Your task to perform on an android device: turn on translation in the chrome app Image 0: 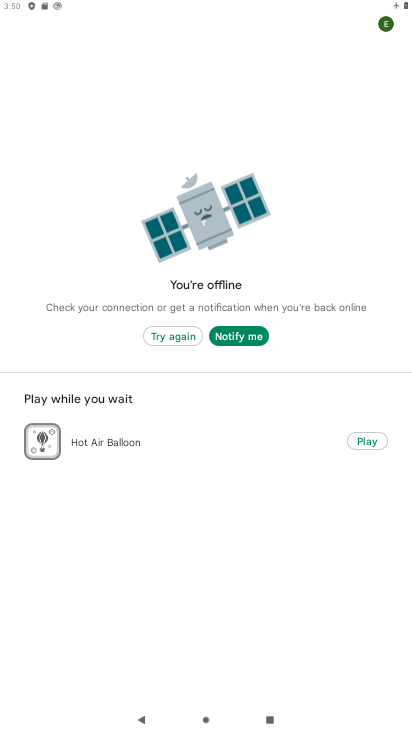
Step 0: press home button
Your task to perform on an android device: turn on translation in the chrome app Image 1: 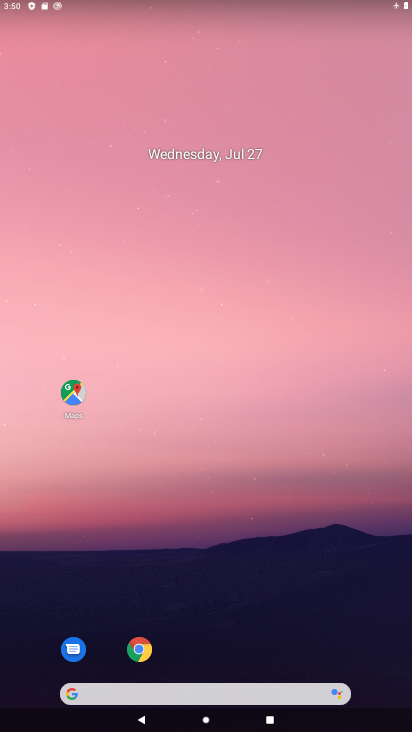
Step 1: drag from (290, 624) to (283, 135)
Your task to perform on an android device: turn on translation in the chrome app Image 2: 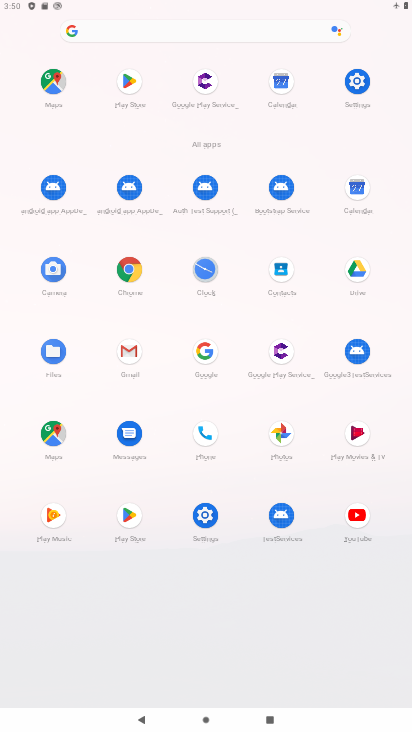
Step 2: click (130, 277)
Your task to perform on an android device: turn on translation in the chrome app Image 3: 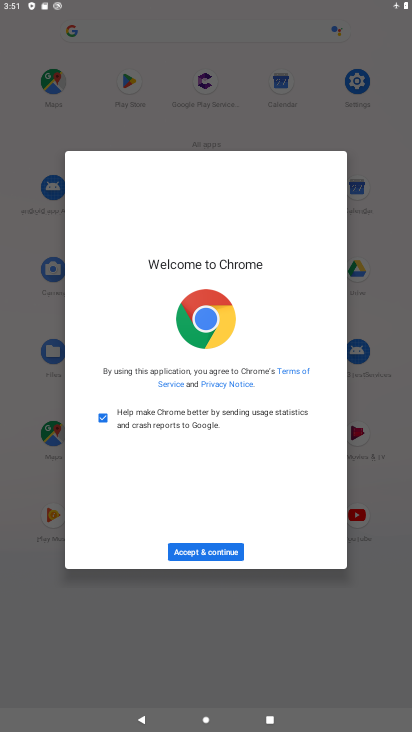
Step 3: click (190, 554)
Your task to perform on an android device: turn on translation in the chrome app Image 4: 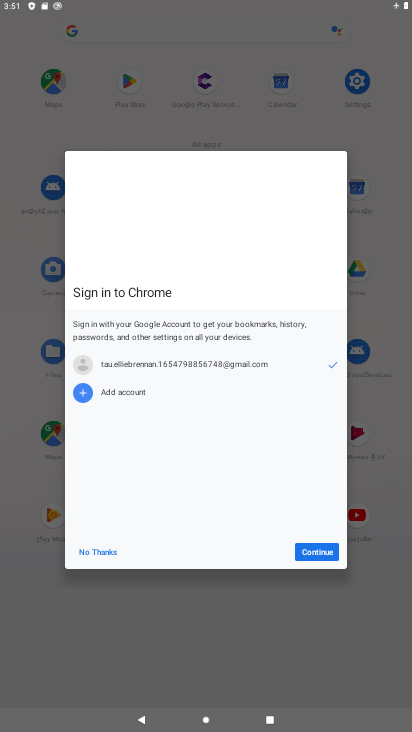
Step 4: click (311, 549)
Your task to perform on an android device: turn on translation in the chrome app Image 5: 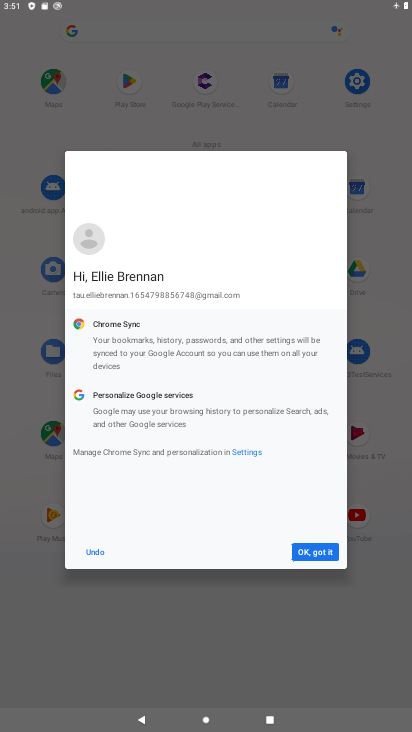
Step 5: click (311, 549)
Your task to perform on an android device: turn on translation in the chrome app Image 6: 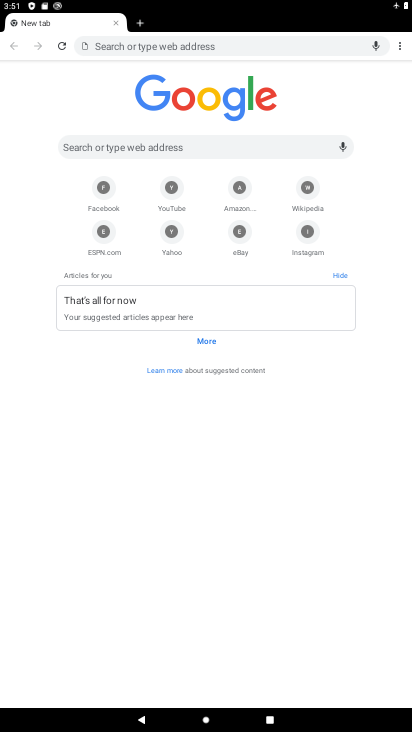
Step 6: click (396, 45)
Your task to perform on an android device: turn on translation in the chrome app Image 7: 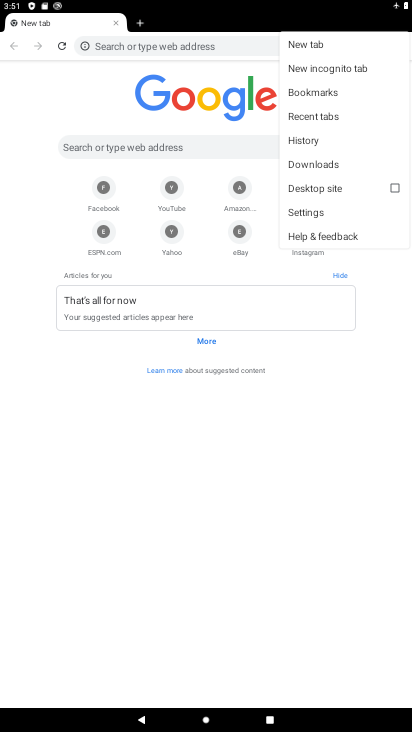
Step 7: click (318, 217)
Your task to perform on an android device: turn on translation in the chrome app Image 8: 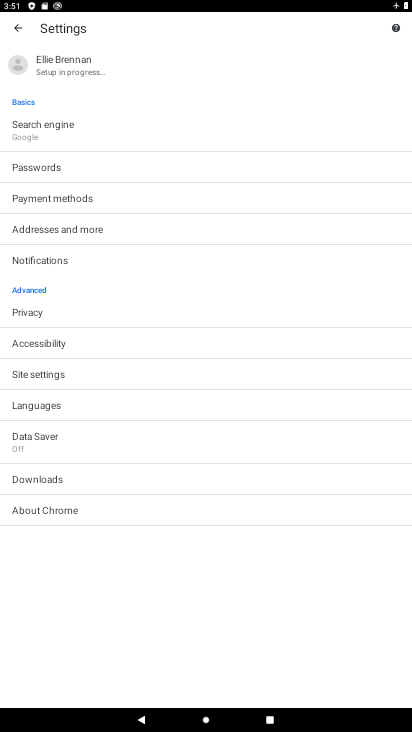
Step 8: click (115, 402)
Your task to perform on an android device: turn on translation in the chrome app Image 9: 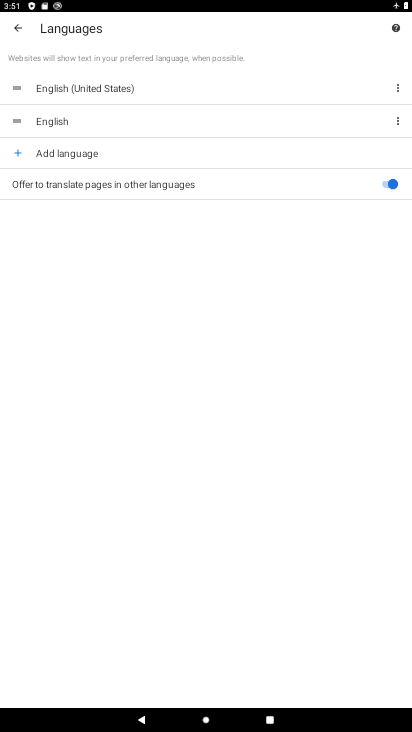
Step 9: task complete